Your task to perform on an android device: Open the web browser Image 0: 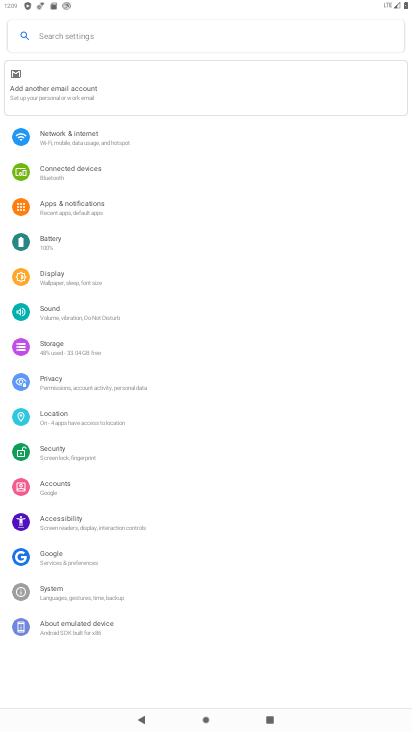
Step 0: press home button
Your task to perform on an android device: Open the web browser Image 1: 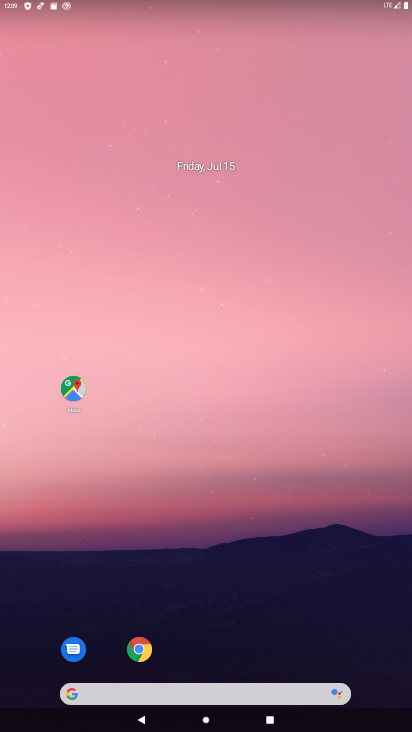
Step 1: click (144, 647)
Your task to perform on an android device: Open the web browser Image 2: 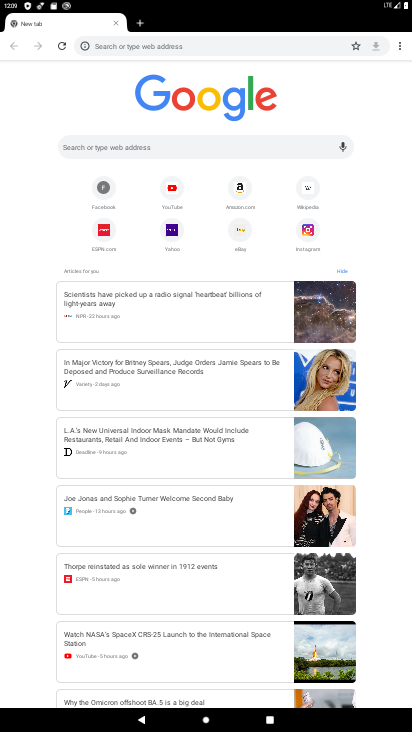
Step 2: task complete